Your task to perform on an android device: Find coffee shops on Maps Image 0: 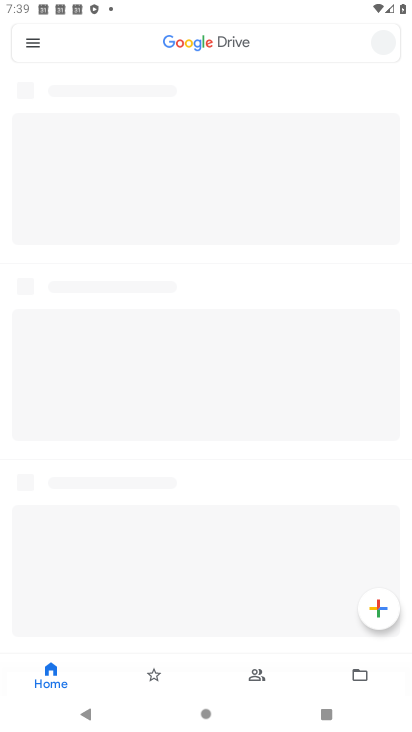
Step 0: drag from (235, 611) to (270, 230)
Your task to perform on an android device: Find coffee shops on Maps Image 1: 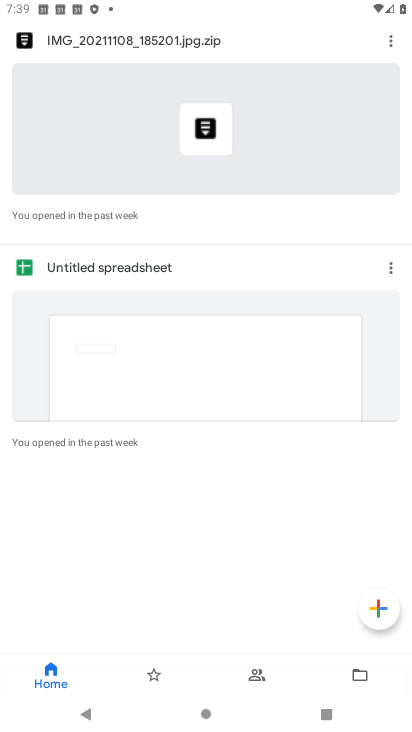
Step 1: press home button
Your task to perform on an android device: Find coffee shops on Maps Image 2: 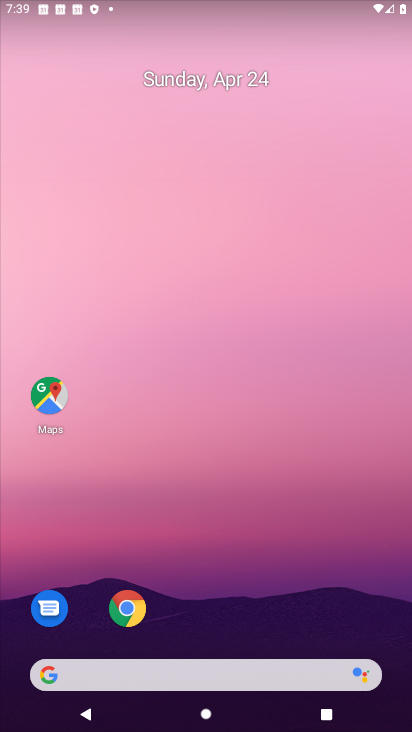
Step 2: drag from (182, 615) to (218, 135)
Your task to perform on an android device: Find coffee shops on Maps Image 3: 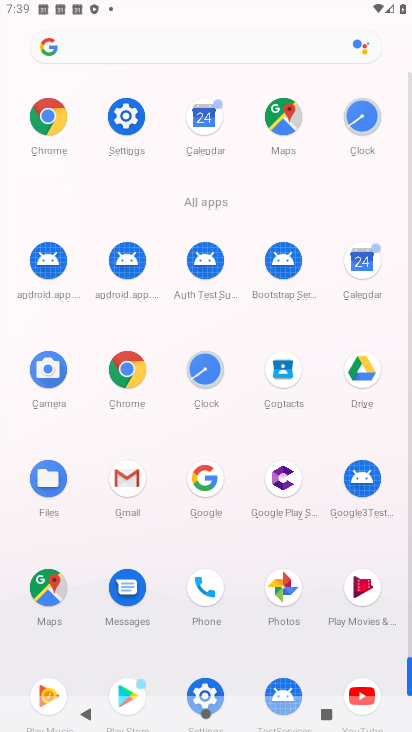
Step 3: click (281, 122)
Your task to perform on an android device: Find coffee shops on Maps Image 4: 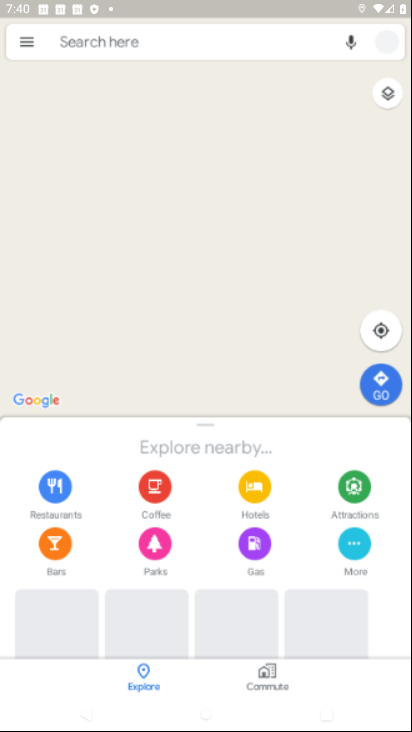
Step 4: click (197, 32)
Your task to perform on an android device: Find coffee shops on Maps Image 5: 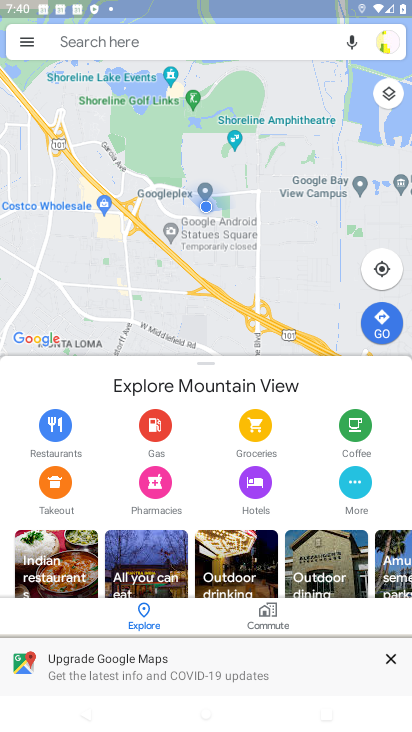
Step 5: click (197, 46)
Your task to perform on an android device: Find coffee shops on Maps Image 6: 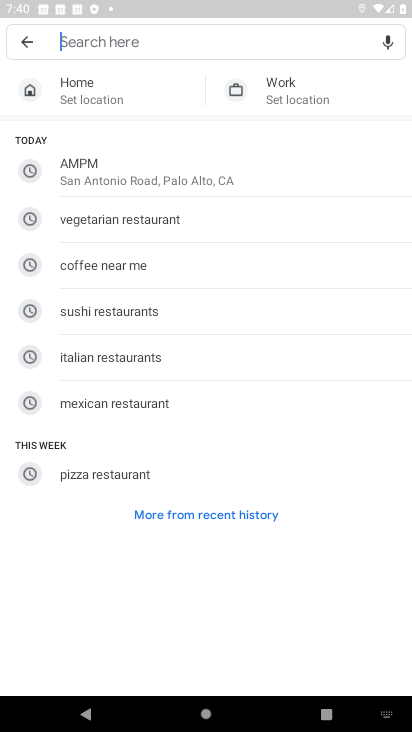
Step 6: type "coffee shops "
Your task to perform on an android device: Find coffee shops on Maps Image 7: 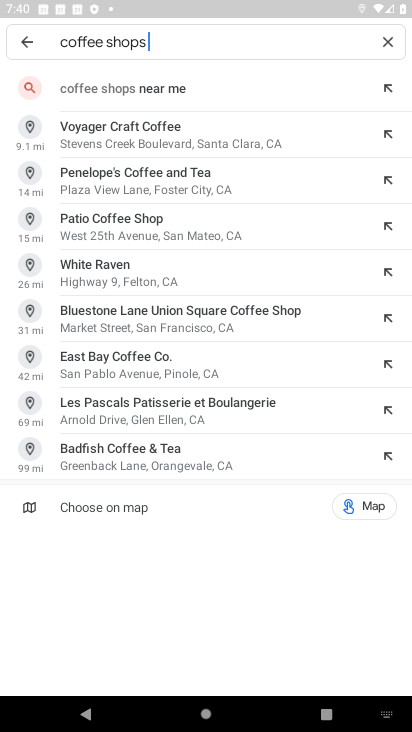
Step 7: press enter
Your task to perform on an android device: Find coffee shops on Maps Image 8: 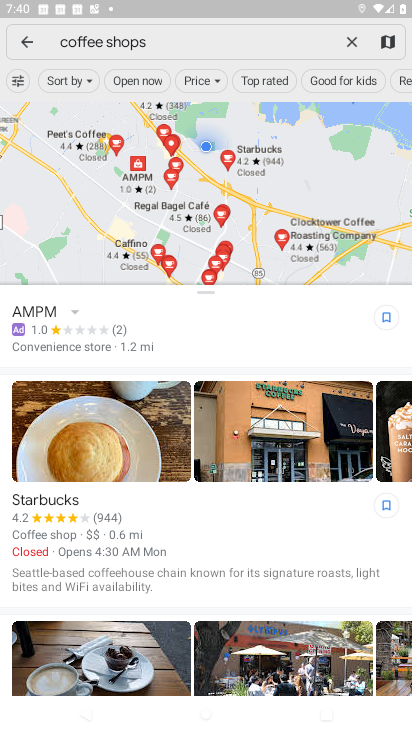
Step 8: task complete